Your task to perform on an android device: turn off notifications in google photos Image 0: 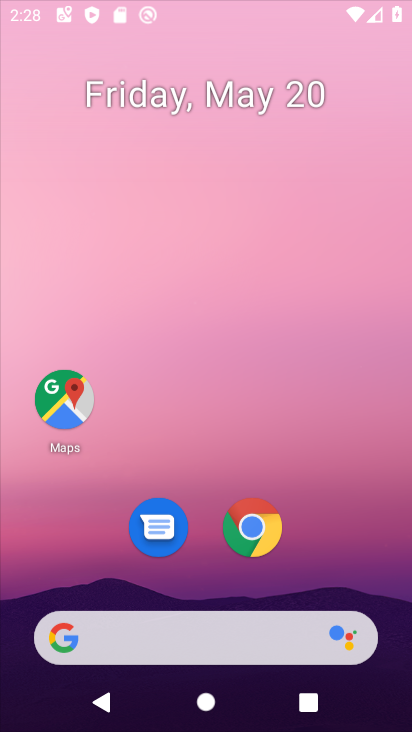
Step 0: click (61, 414)
Your task to perform on an android device: turn off notifications in google photos Image 1: 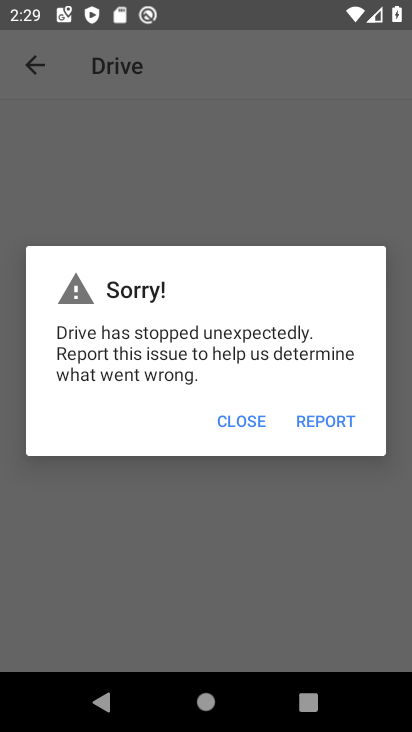
Step 1: press home button
Your task to perform on an android device: turn off notifications in google photos Image 2: 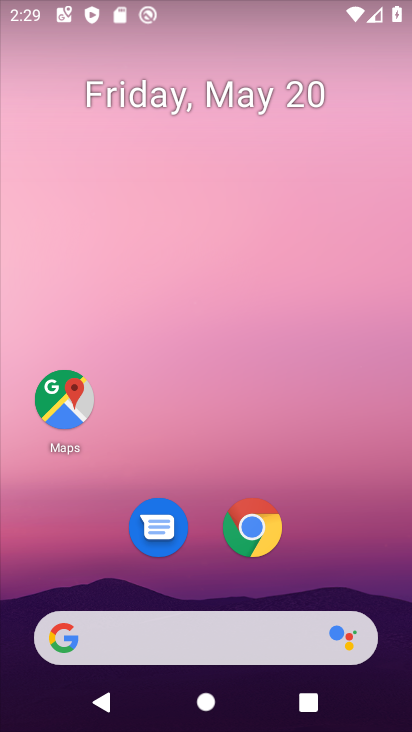
Step 2: drag from (166, 702) to (222, 301)
Your task to perform on an android device: turn off notifications in google photos Image 3: 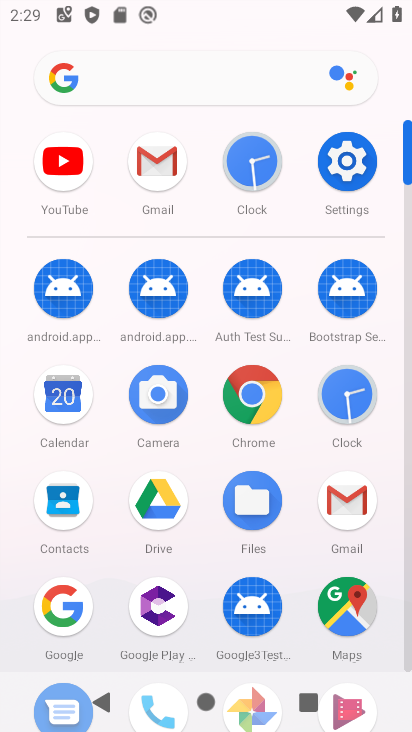
Step 3: drag from (251, 586) to (236, 283)
Your task to perform on an android device: turn off notifications in google photos Image 4: 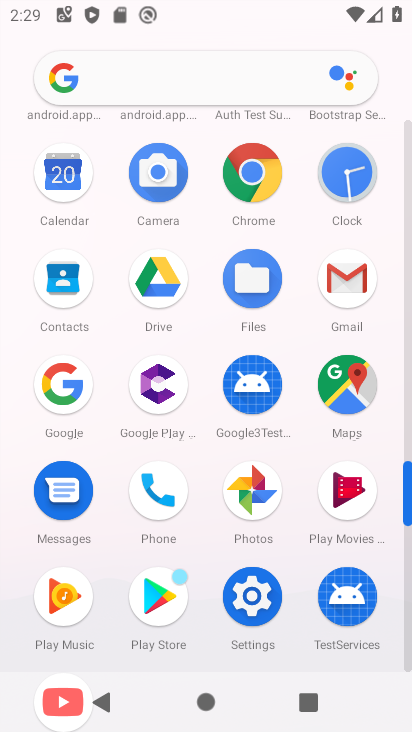
Step 4: click (250, 492)
Your task to perform on an android device: turn off notifications in google photos Image 5: 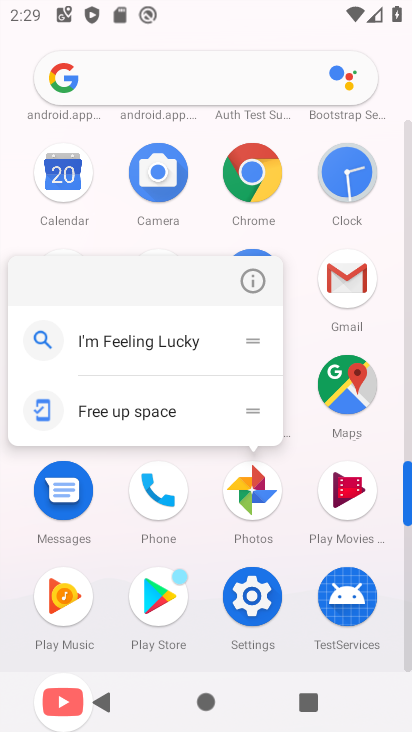
Step 5: click (256, 281)
Your task to perform on an android device: turn off notifications in google photos Image 6: 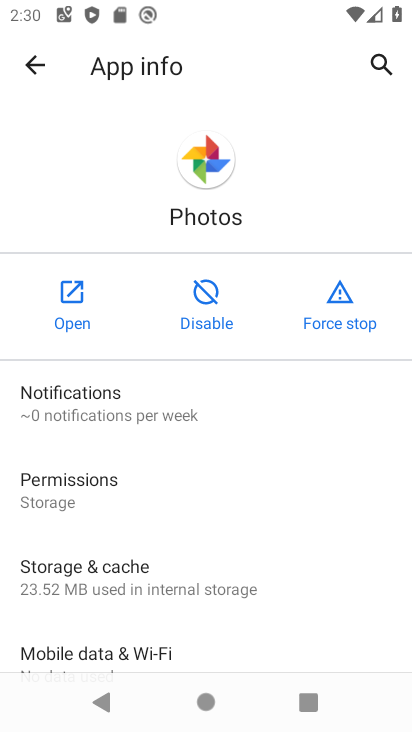
Step 6: click (153, 409)
Your task to perform on an android device: turn off notifications in google photos Image 7: 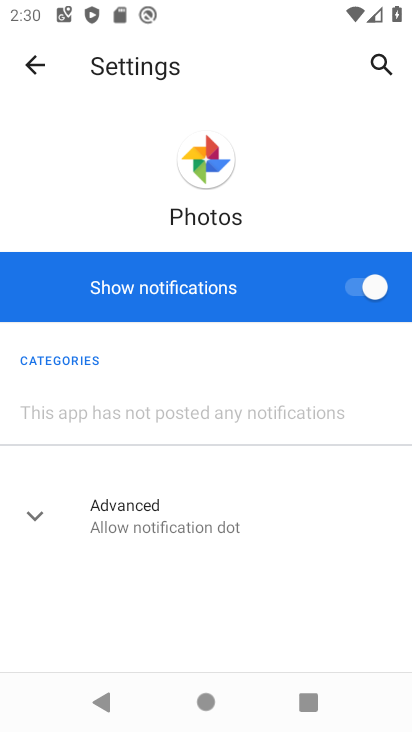
Step 7: click (384, 290)
Your task to perform on an android device: turn off notifications in google photos Image 8: 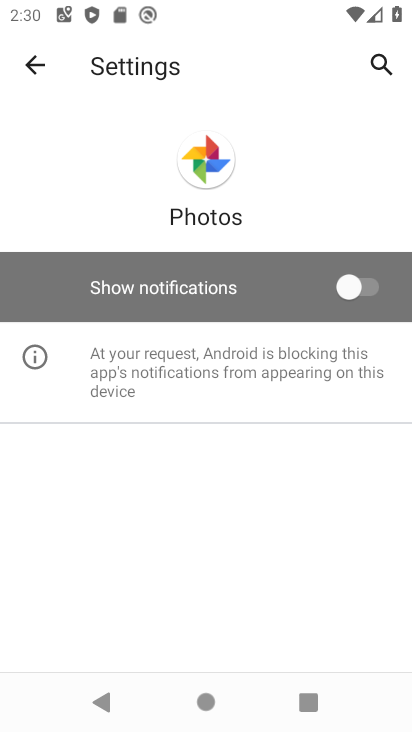
Step 8: task complete